Your task to perform on an android device: turn on location history Image 0: 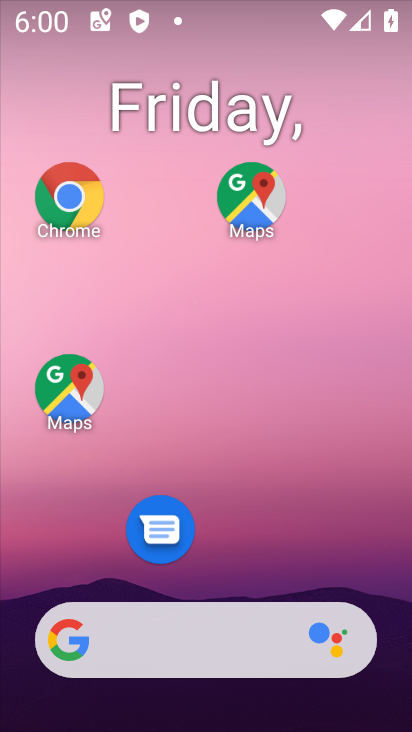
Step 0: drag from (231, 573) to (285, 19)
Your task to perform on an android device: turn on location history Image 1: 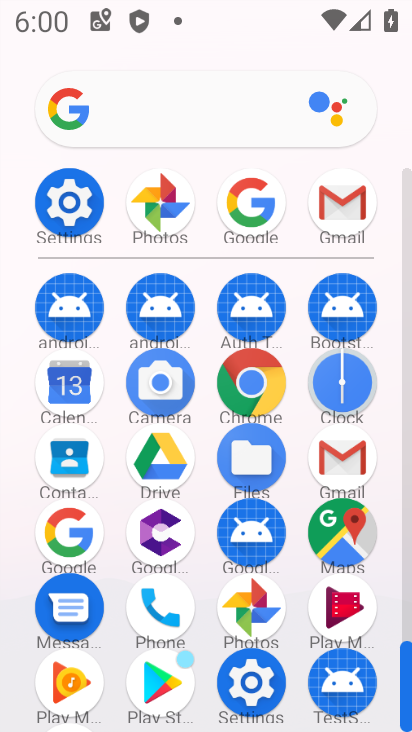
Step 1: click (61, 203)
Your task to perform on an android device: turn on location history Image 2: 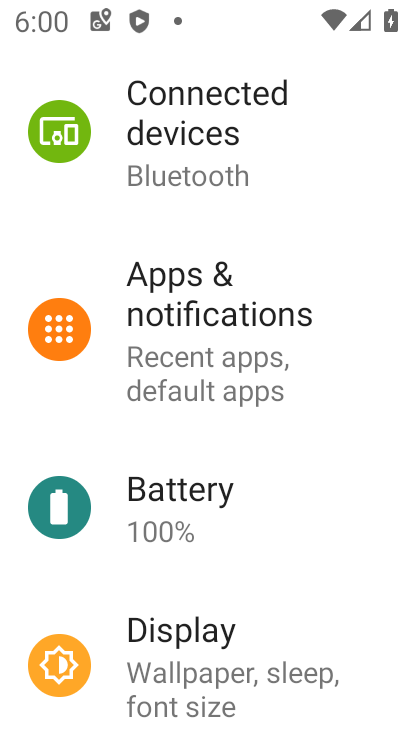
Step 2: drag from (280, 236) to (260, 563)
Your task to perform on an android device: turn on location history Image 3: 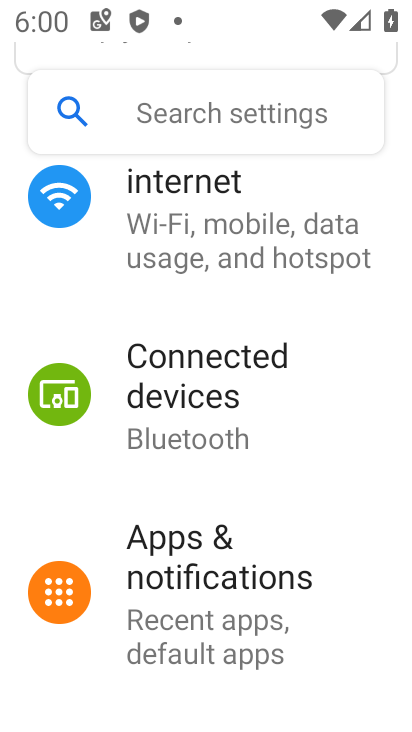
Step 3: drag from (229, 573) to (287, 256)
Your task to perform on an android device: turn on location history Image 4: 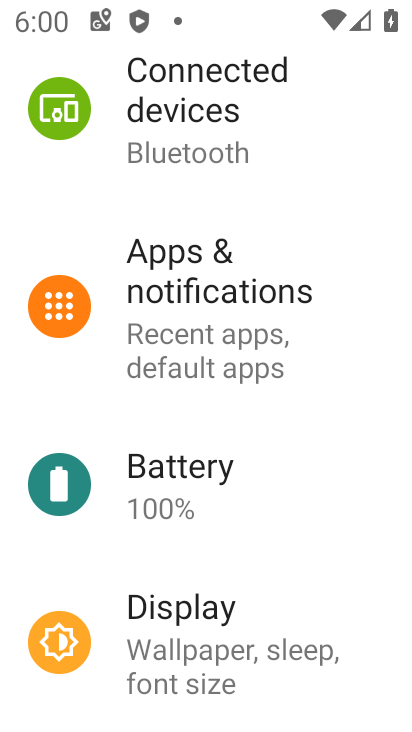
Step 4: drag from (240, 628) to (240, 295)
Your task to perform on an android device: turn on location history Image 5: 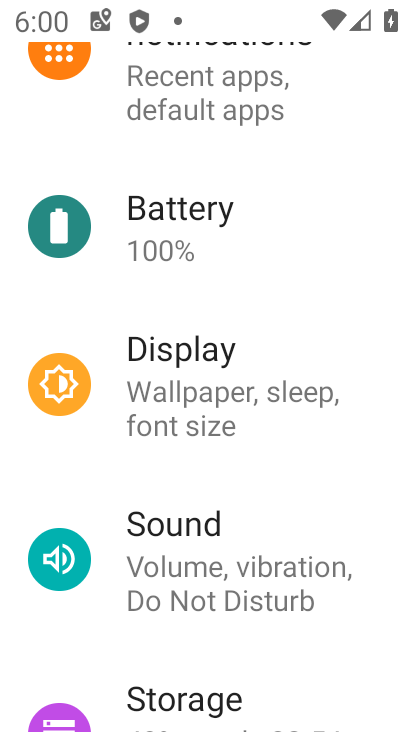
Step 5: drag from (267, 650) to (317, 275)
Your task to perform on an android device: turn on location history Image 6: 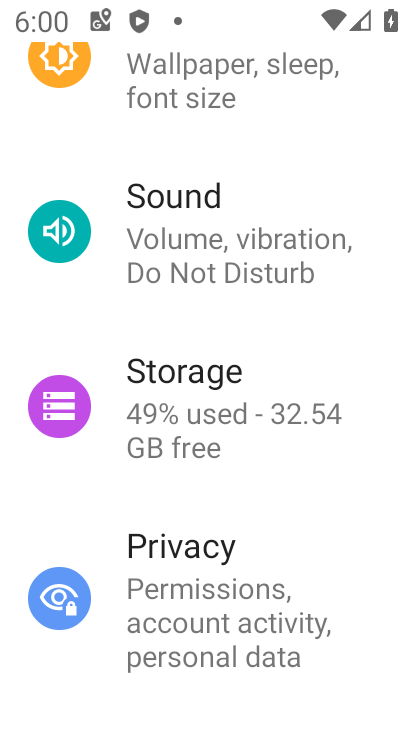
Step 6: drag from (270, 514) to (301, 290)
Your task to perform on an android device: turn on location history Image 7: 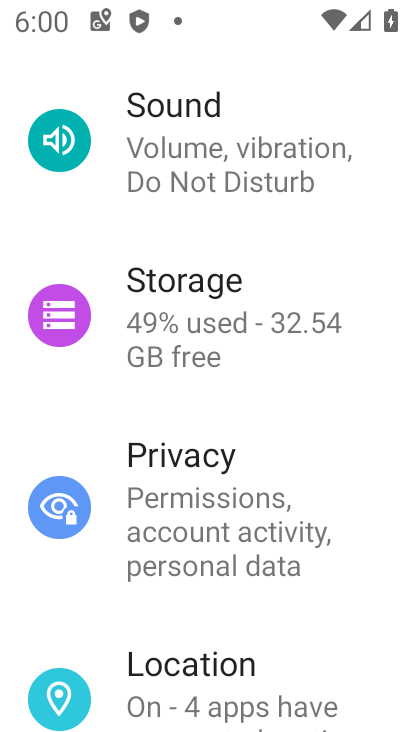
Step 7: click (208, 692)
Your task to perform on an android device: turn on location history Image 8: 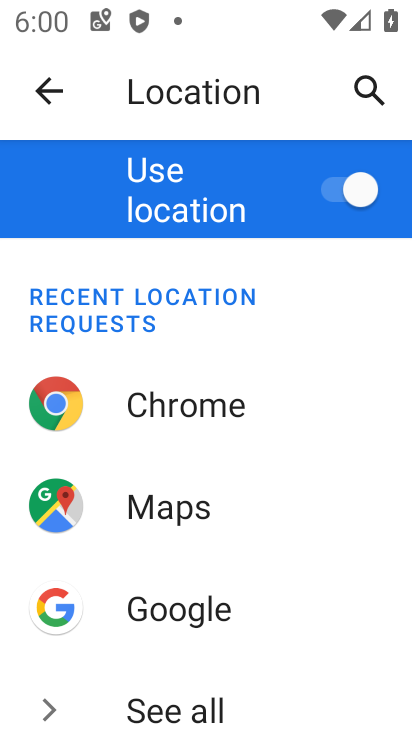
Step 8: drag from (270, 673) to (318, 331)
Your task to perform on an android device: turn on location history Image 9: 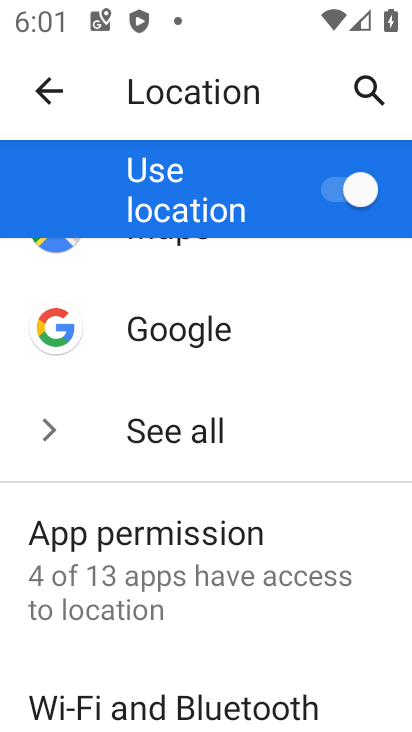
Step 9: drag from (230, 609) to (240, 295)
Your task to perform on an android device: turn on location history Image 10: 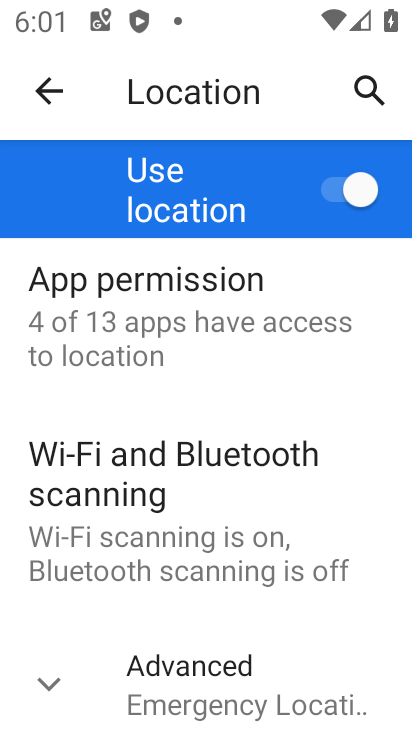
Step 10: drag from (253, 627) to (283, 358)
Your task to perform on an android device: turn on location history Image 11: 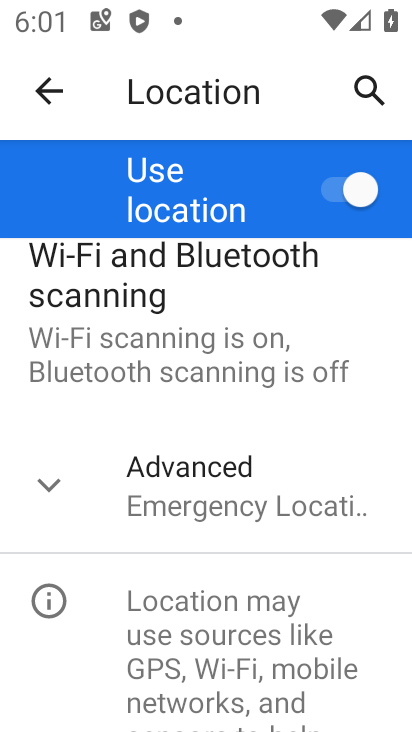
Step 11: click (166, 500)
Your task to perform on an android device: turn on location history Image 12: 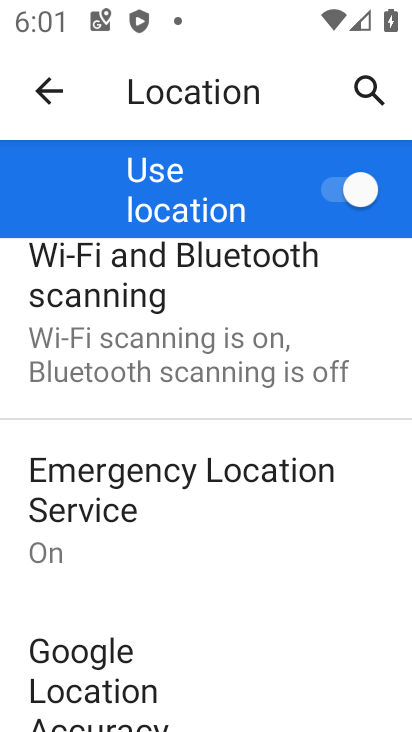
Step 12: drag from (253, 682) to (271, 443)
Your task to perform on an android device: turn on location history Image 13: 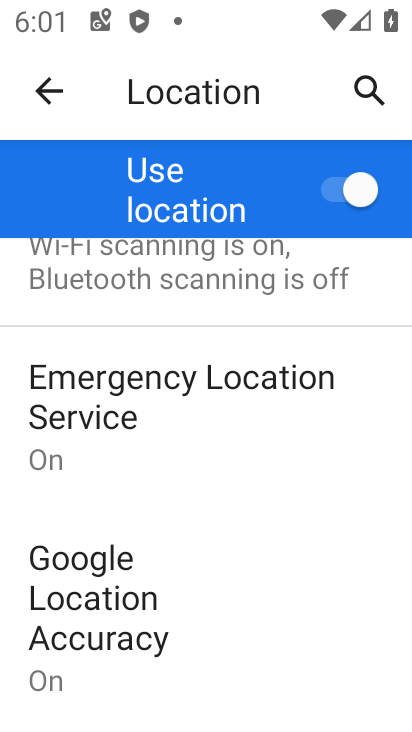
Step 13: drag from (238, 649) to (292, 330)
Your task to perform on an android device: turn on location history Image 14: 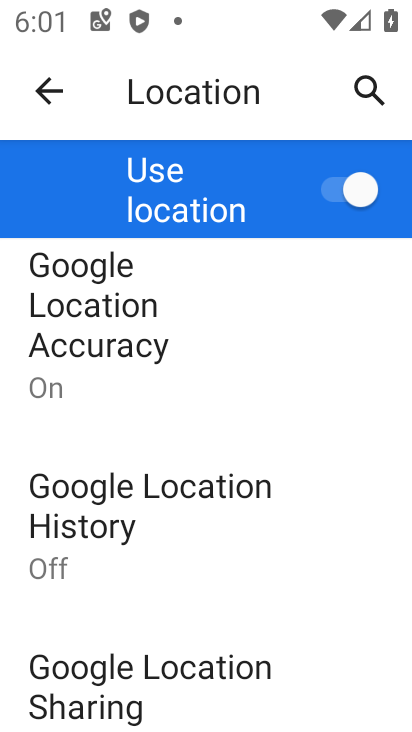
Step 14: click (150, 528)
Your task to perform on an android device: turn on location history Image 15: 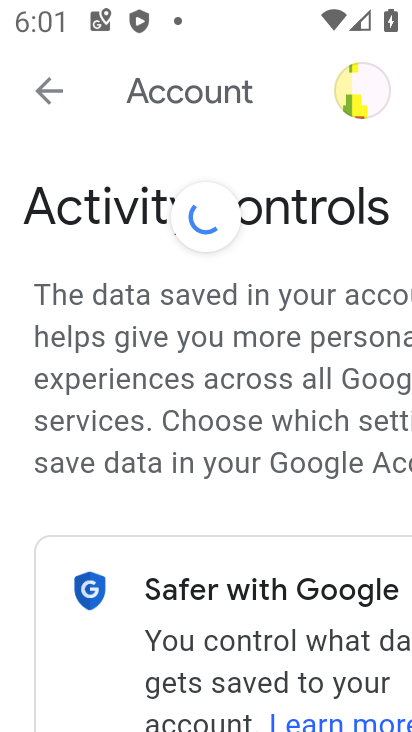
Step 15: drag from (223, 577) to (234, 198)
Your task to perform on an android device: turn on location history Image 16: 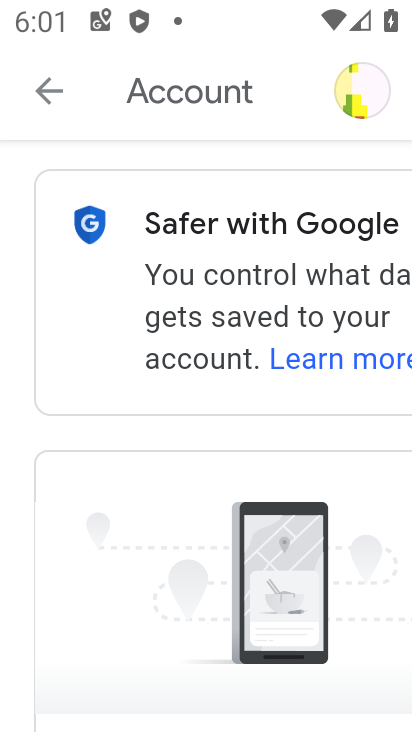
Step 16: drag from (189, 466) to (182, 113)
Your task to perform on an android device: turn on location history Image 17: 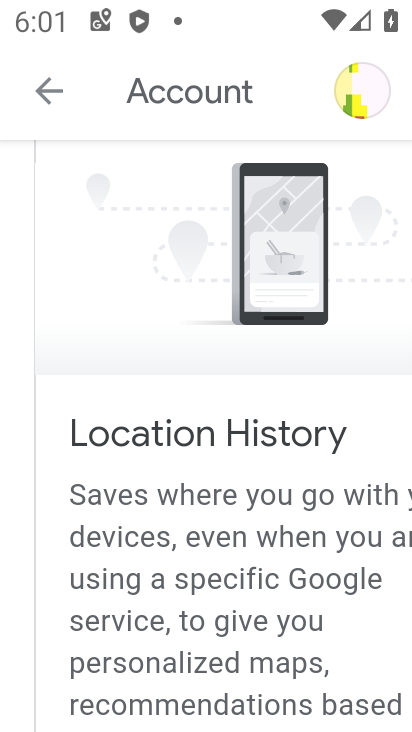
Step 17: drag from (188, 510) to (226, 107)
Your task to perform on an android device: turn on location history Image 18: 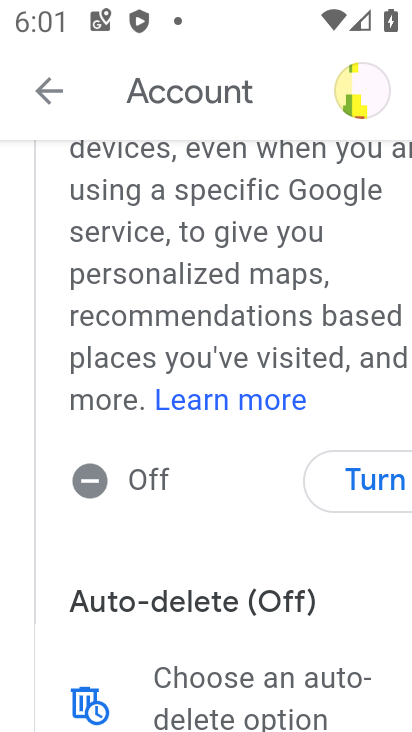
Step 18: click (365, 493)
Your task to perform on an android device: turn on location history Image 19: 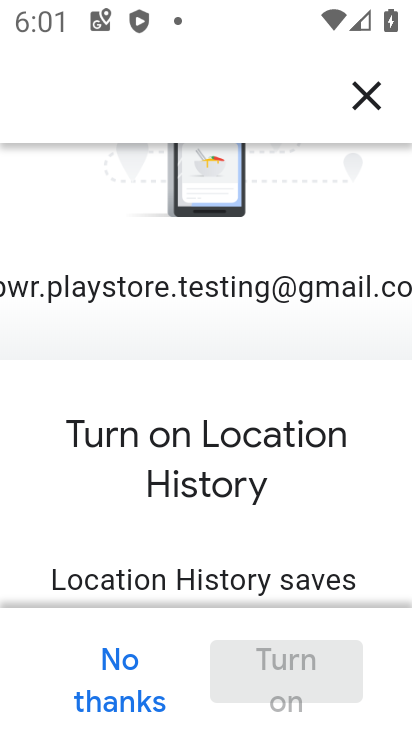
Step 19: drag from (257, 486) to (257, 92)
Your task to perform on an android device: turn on location history Image 20: 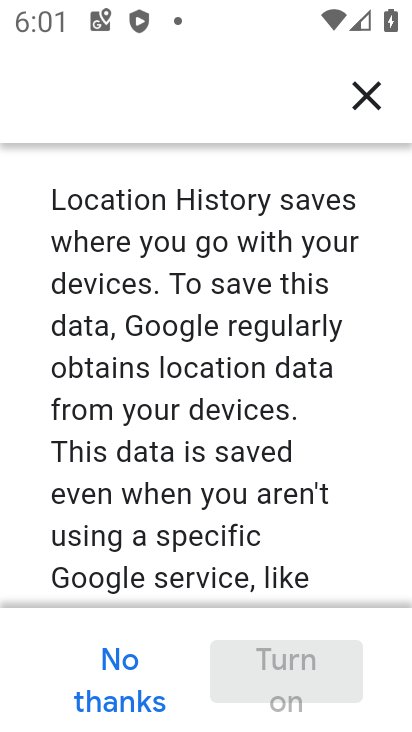
Step 20: drag from (249, 135) to (270, 6)
Your task to perform on an android device: turn on location history Image 21: 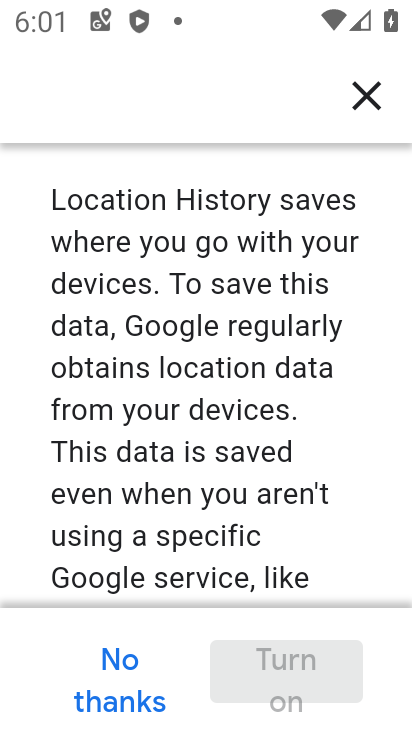
Step 21: drag from (280, 474) to (277, 39)
Your task to perform on an android device: turn on location history Image 22: 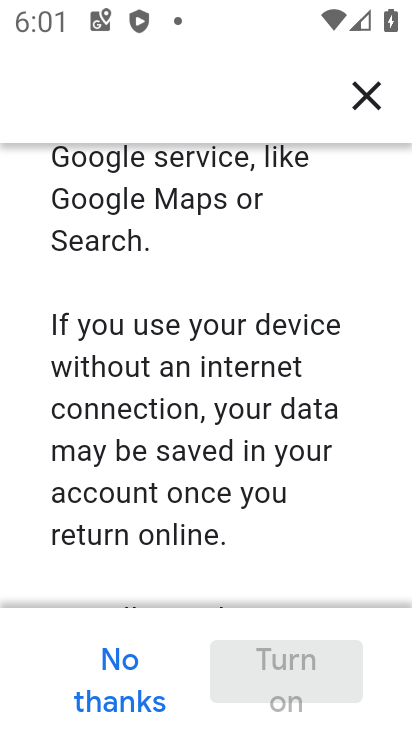
Step 22: drag from (282, 508) to (285, 43)
Your task to perform on an android device: turn on location history Image 23: 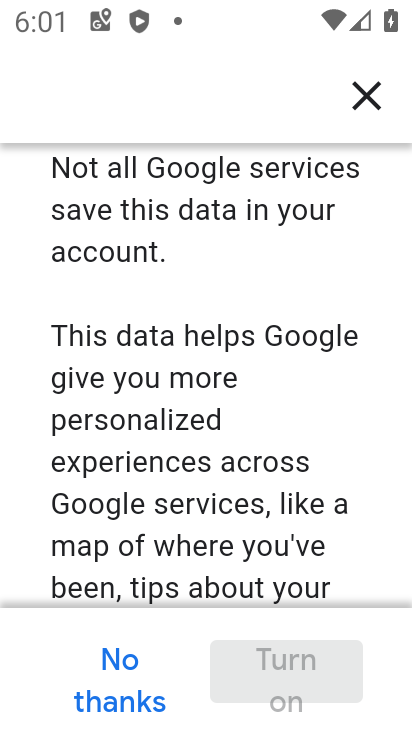
Step 23: drag from (238, 517) to (262, 41)
Your task to perform on an android device: turn on location history Image 24: 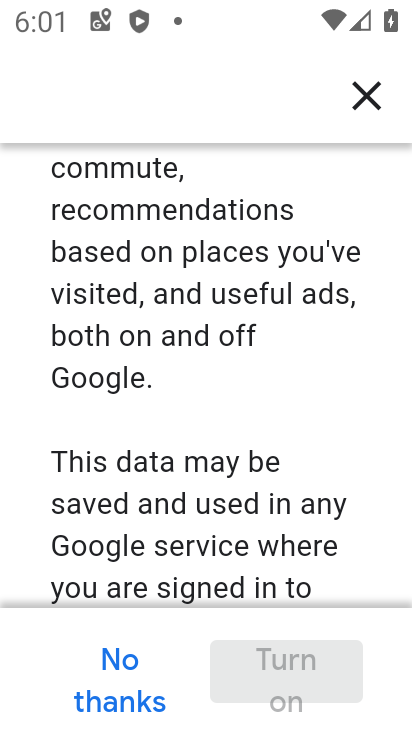
Step 24: drag from (280, 548) to (306, 130)
Your task to perform on an android device: turn on location history Image 25: 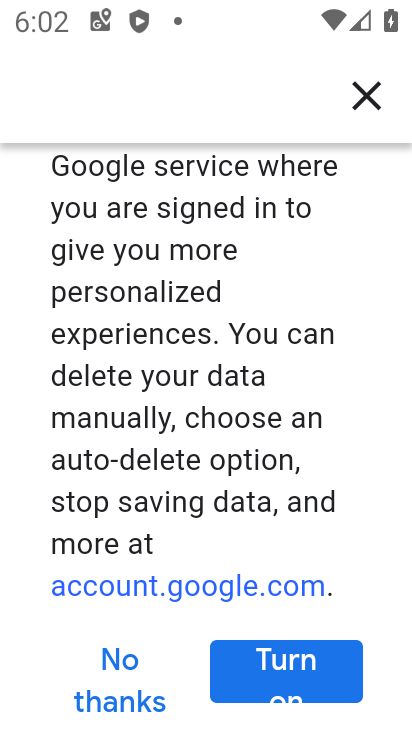
Step 25: click (268, 673)
Your task to perform on an android device: turn on location history Image 26: 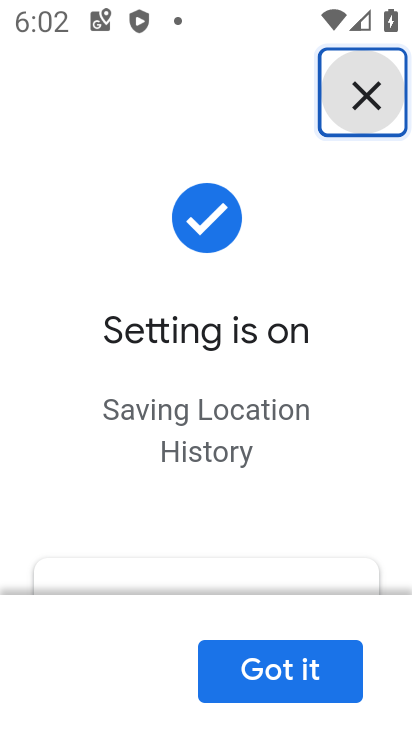
Step 26: click (285, 679)
Your task to perform on an android device: turn on location history Image 27: 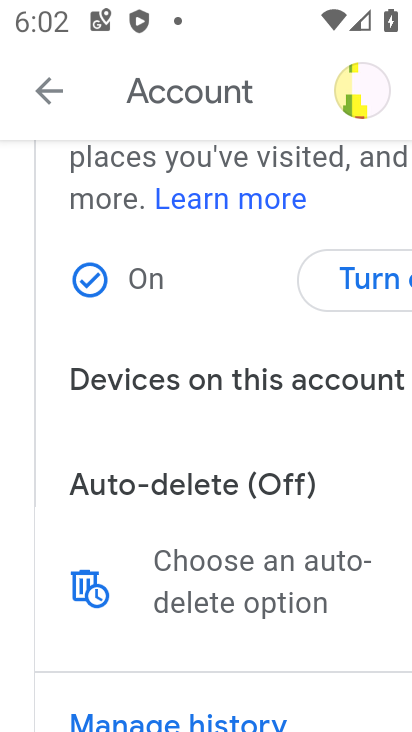
Step 27: task complete